Your task to perform on an android device: See recent photos Image 0: 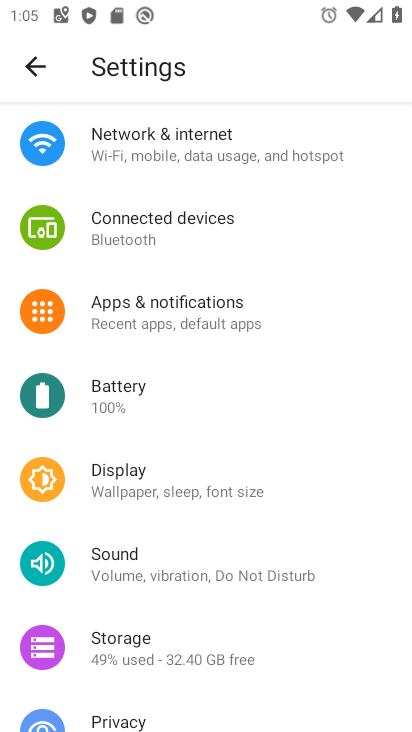
Step 0: press home button
Your task to perform on an android device: See recent photos Image 1: 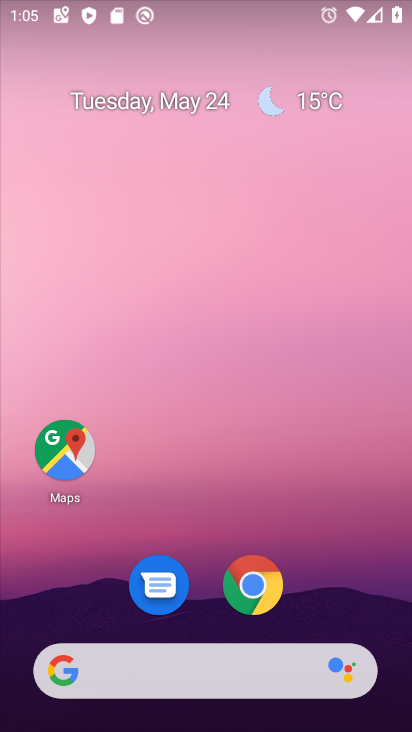
Step 1: drag from (231, 514) to (202, 46)
Your task to perform on an android device: See recent photos Image 2: 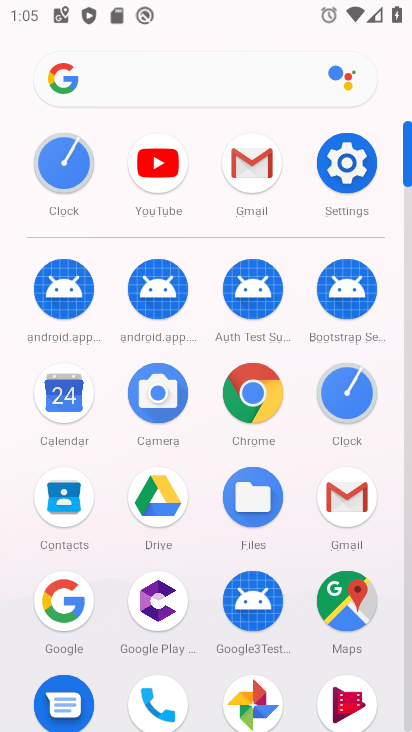
Step 2: drag from (187, 479) to (212, 177)
Your task to perform on an android device: See recent photos Image 3: 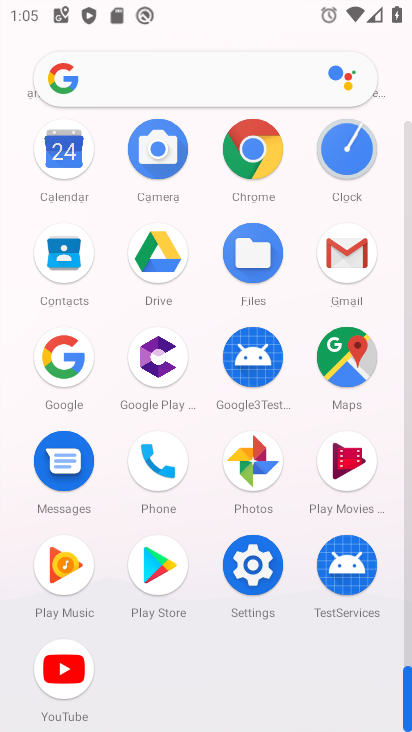
Step 3: click (248, 445)
Your task to perform on an android device: See recent photos Image 4: 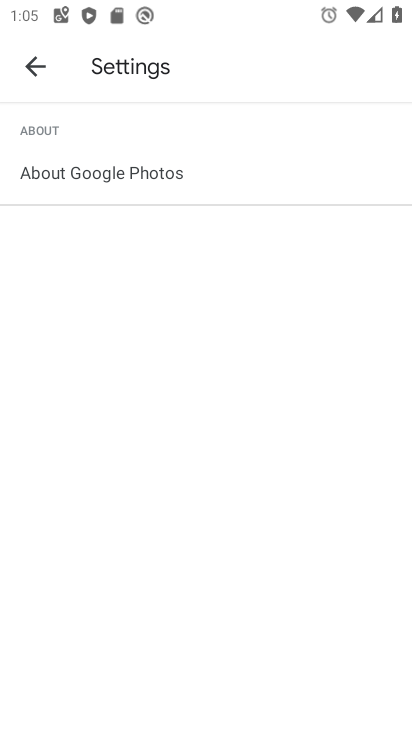
Step 4: click (35, 66)
Your task to perform on an android device: See recent photos Image 5: 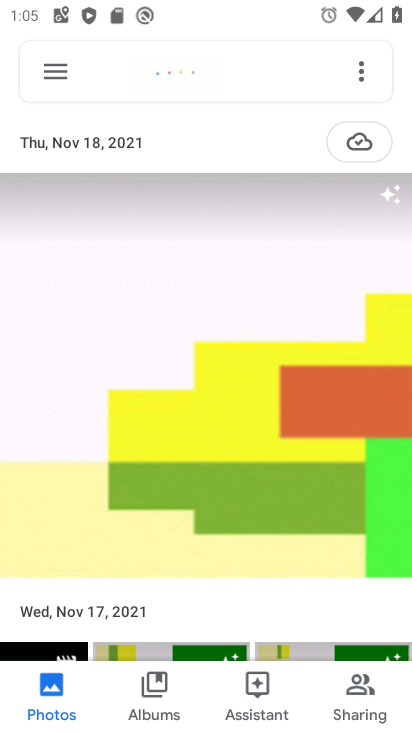
Step 5: click (49, 688)
Your task to perform on an android device: See recent photos Image 6: 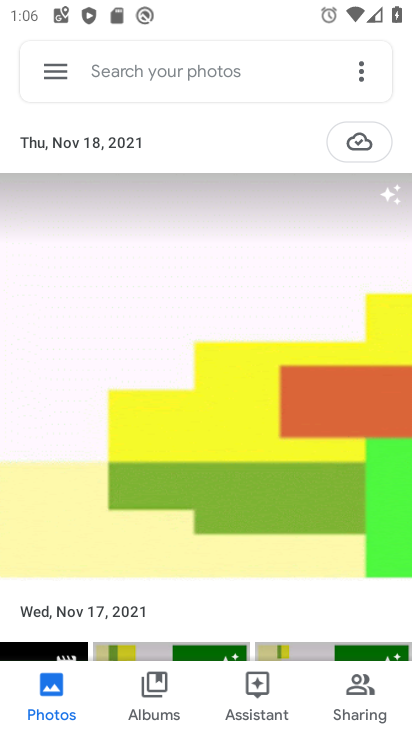
Step 6: task complete